Your task to perform on an android device: open chrome privacy settings Image 0: 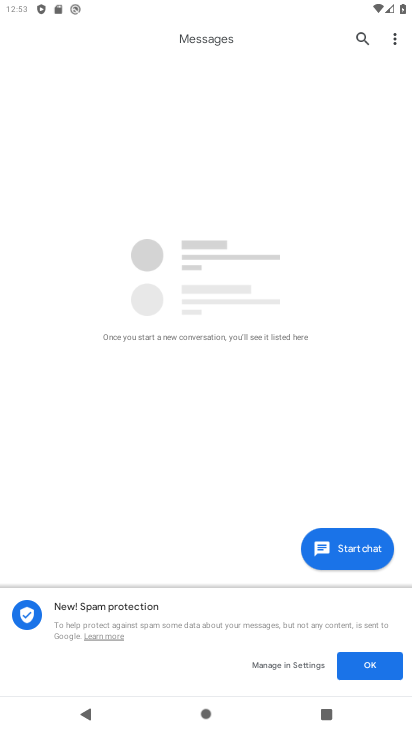
Step 0: press home button
Your task to perform on an android device: open chrome privacy settings Image 1: 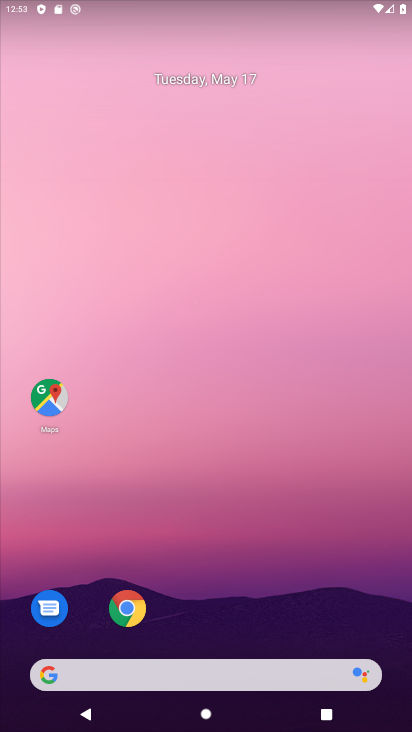
Step 1: click (120, 614)
Your task to perform on an android device: open chrome privacy settings Image 2: 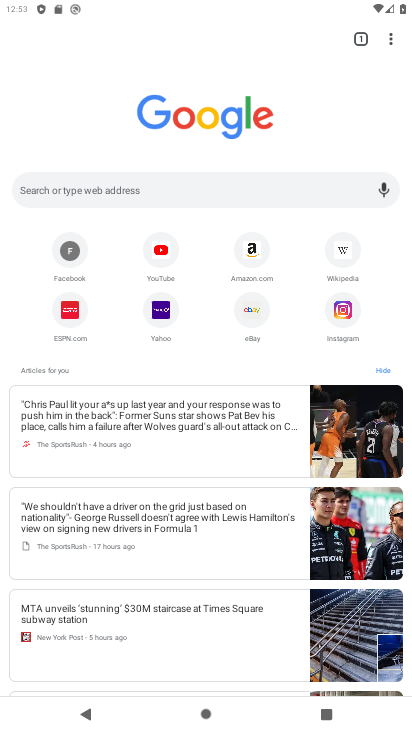
Step 2: click (393, 41)
Your task to perform on an android device: open chrome privacy settings Image 3: 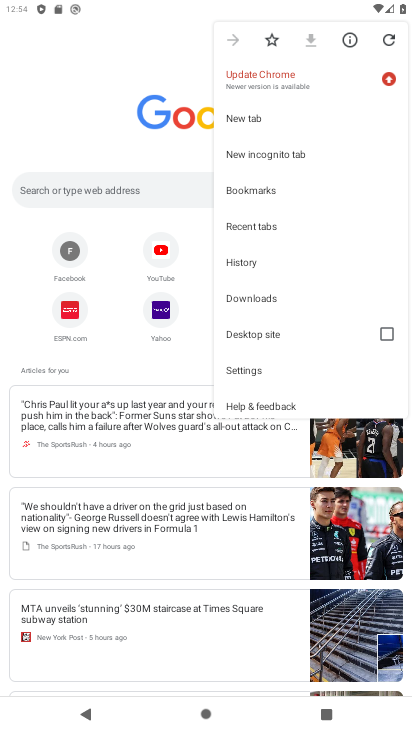
Step 3: click (269, 368)
Your task to perform on an android device: open chrome privacy settings Image 4: 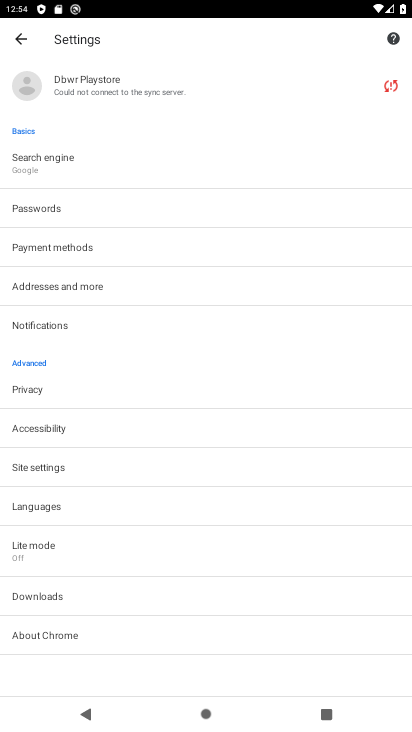
Step 4: click (82, 396)
Your task to perform on an android device: open chrome privacy settings Image 5: 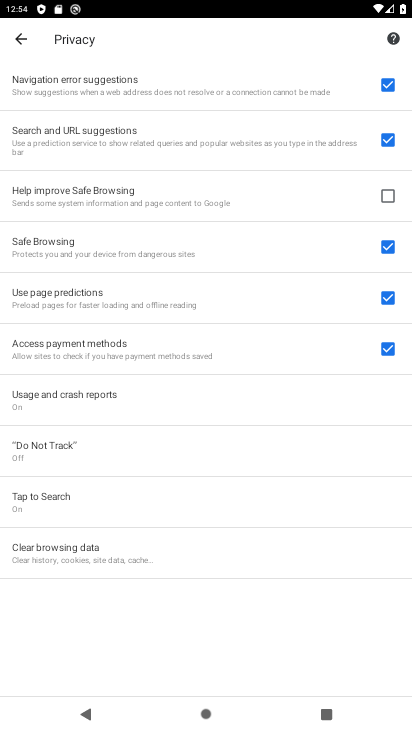
Step 5: task complete